Your task to perform on an android device: Search for pizza restaurants on Maps Image 0: 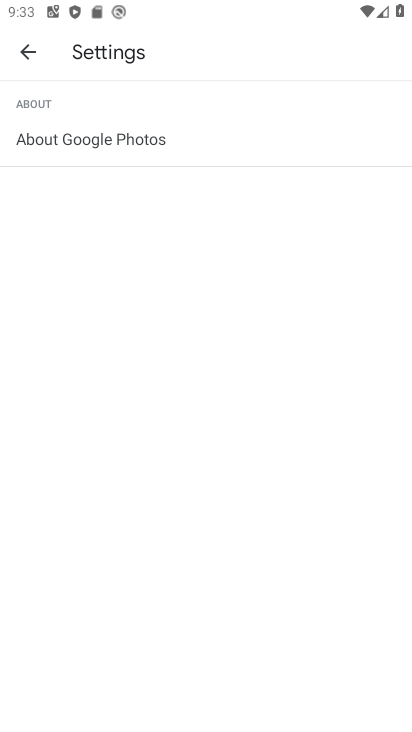
Step 0: press home button
Your task to perform on an android device: Search for pizza restaurants on Maps Image 1: 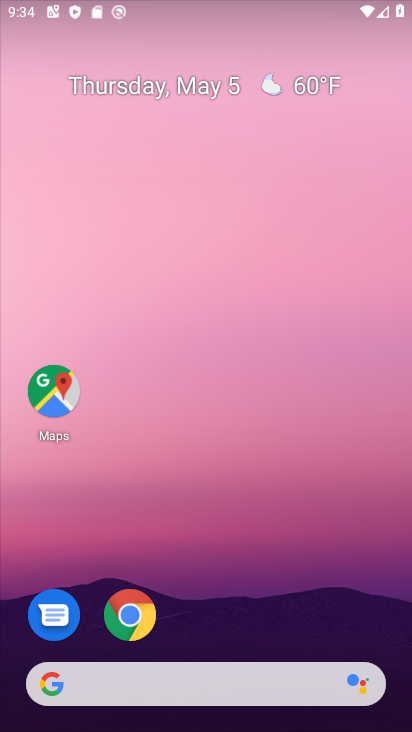
Step 1: drag from (257, 603) to (259, 529)
Your task to perform on an android device: Search for pizza restaurants on Maps Image 2: 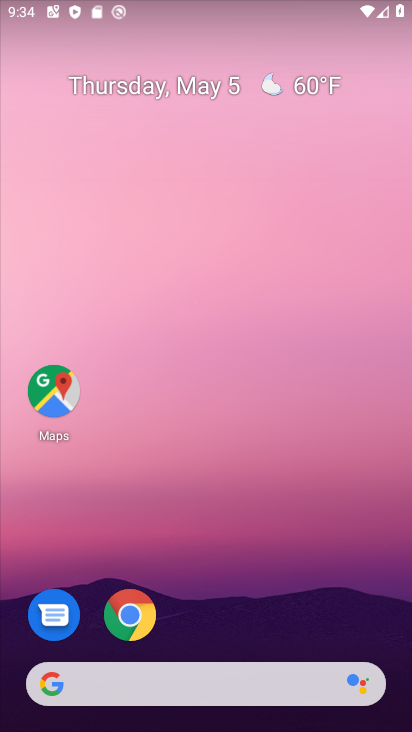
Step 2: click (55, 395)
Your task to perform on an android device: Search for pizza restaurants on Maps Image 3: 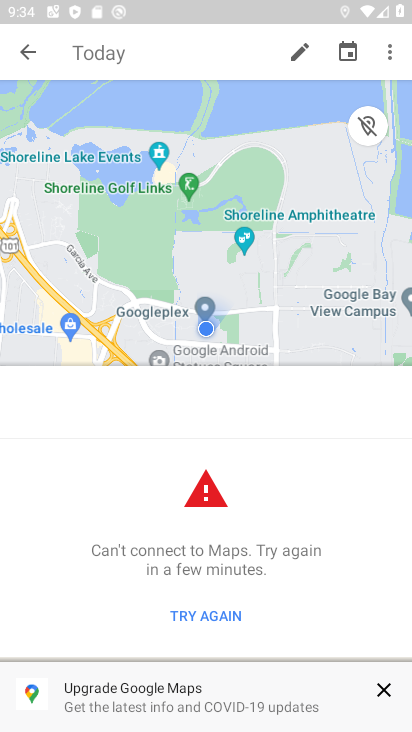
Step 3: click (195, 46)
Your task to perform on an android device: Search for pizza restaurants on Maps Image 4: 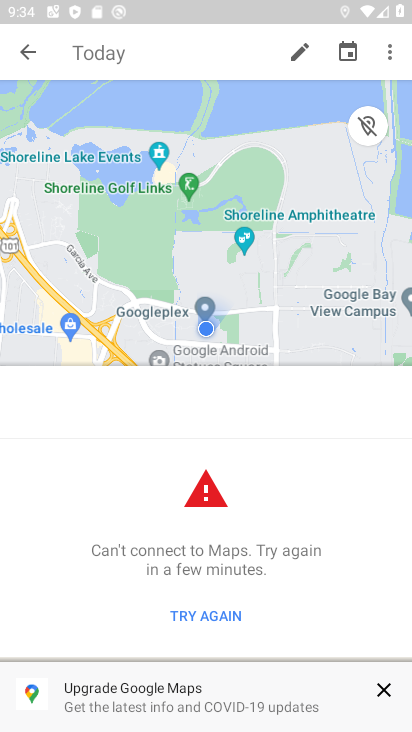
Step 4: press back button
Your task to perform on an android device: Search for pizza restaurants on Maps Image 5: 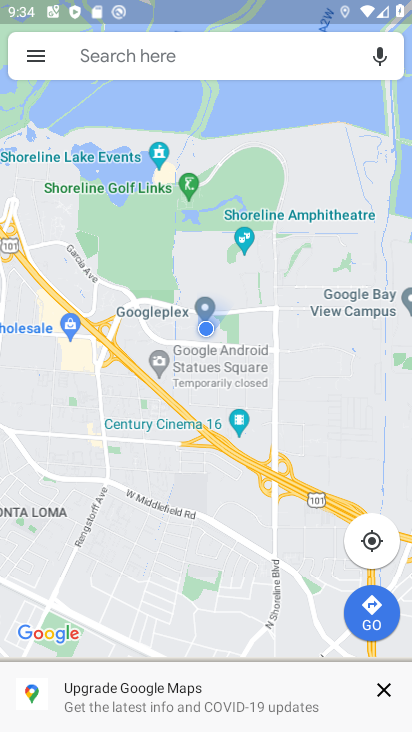
Step 5: click (188, 71)
Your task to perform on an android device: Search for pizza restaurants on Maps Image 6: 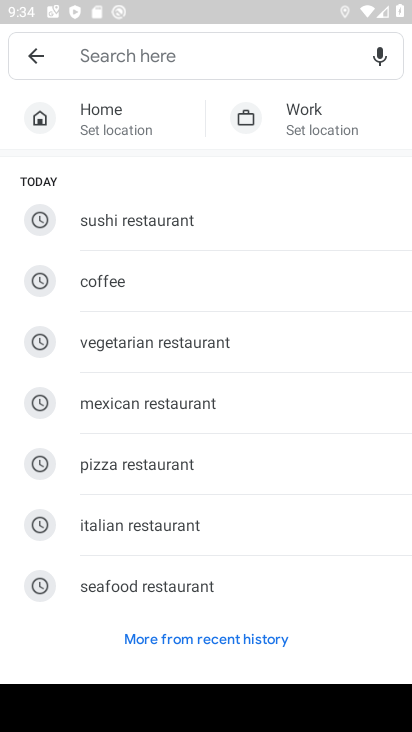
Step 6: click (175, 466)
Your task to perform on an android device: Search for pizza restaurants on Maps Image 7: 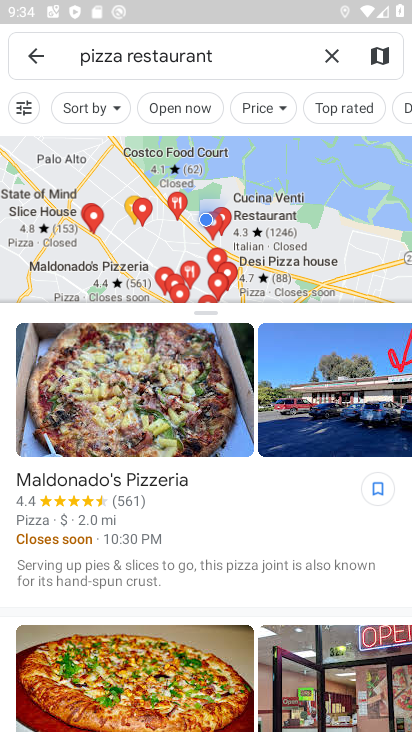
Step 7: task complete